Your task to perform on an android device: Clear the shopping cart on amazon.com. Search for duracell triple a on amazon.com, select the first entry, add it to the cart, then select checkout. Image 0: 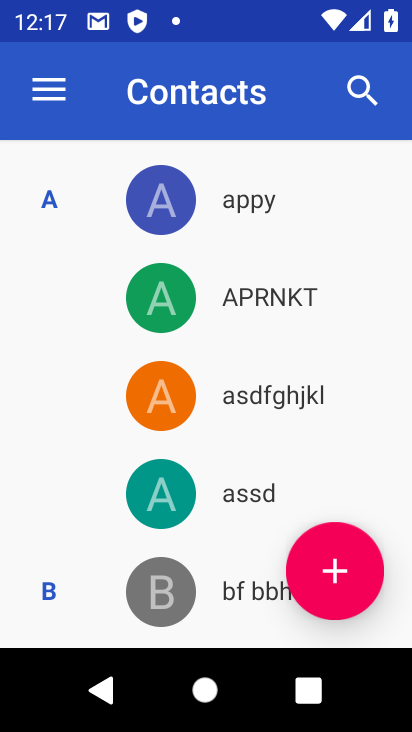
Step 0: press home button
Your task to perform on an android device: Clear the shopping cart on amazon.com. Search for duracell triple a on amazon.com, select the first entry, add it to the cart, then select checkout. Image 1: 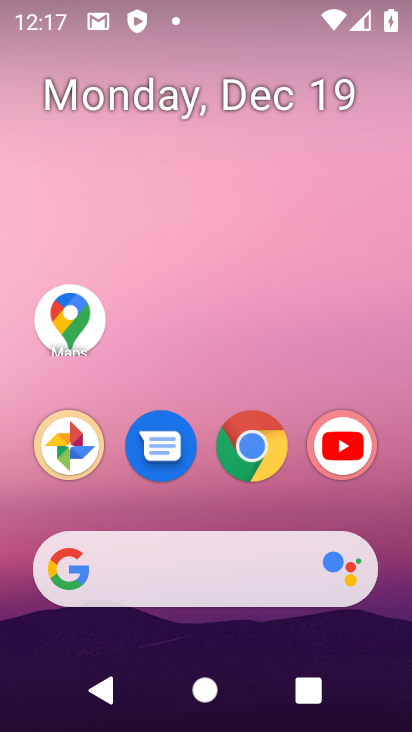
Step 1: click (263, 450)
Your task to perform on an android device: Clear the shopping cart on amazon.com. Search for duracell triple a on amazon.com, select the first entry, add it to the cart, then select checkout. Image 2: 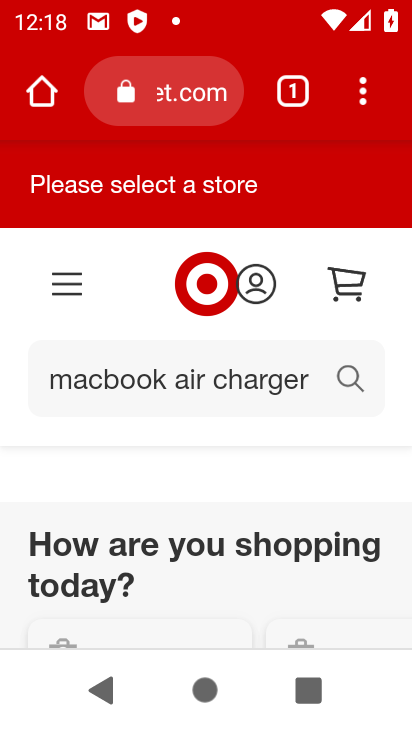
Step 2: task complete